Your task to perform on an android device: change the clock style Image 0: 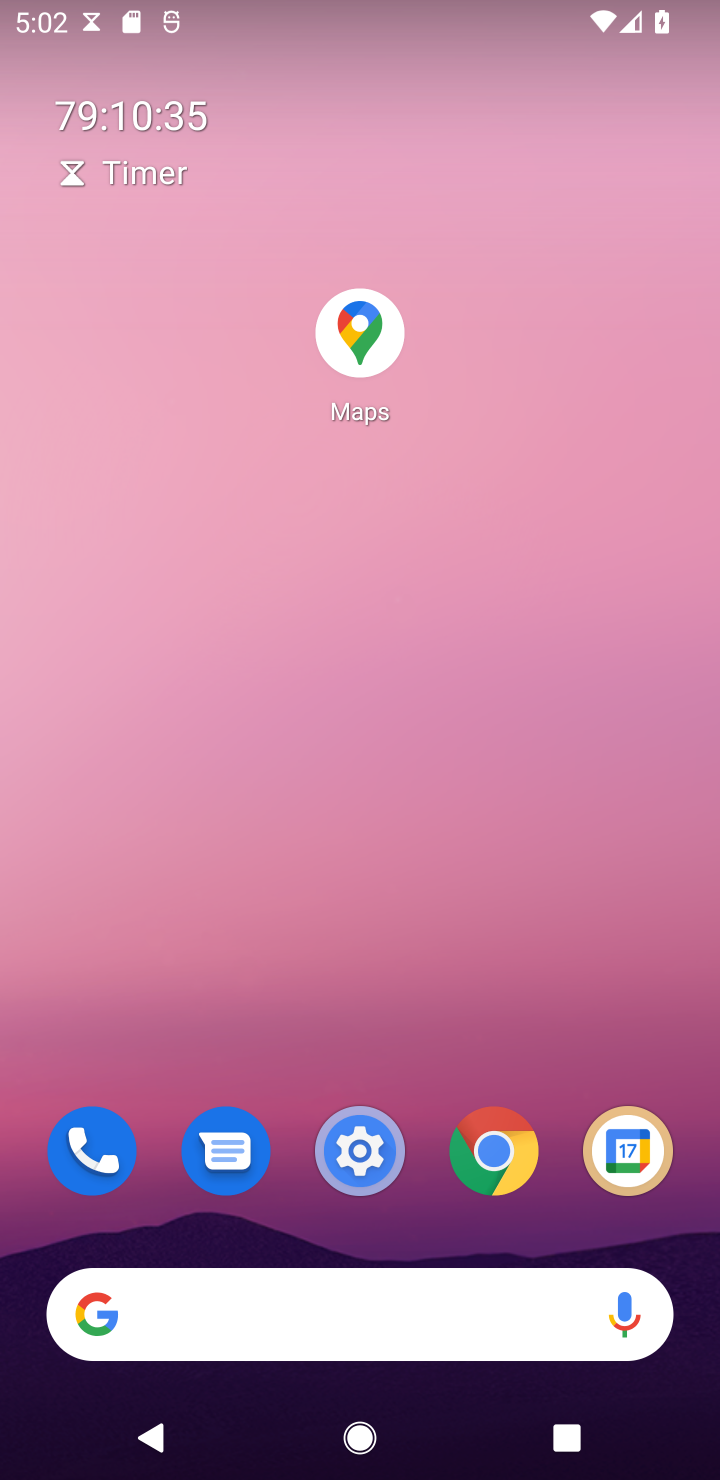
Step 0: drag from (295, 1335) to (355, 570)
Your task to perform on an android device: change the clock style Image 1: 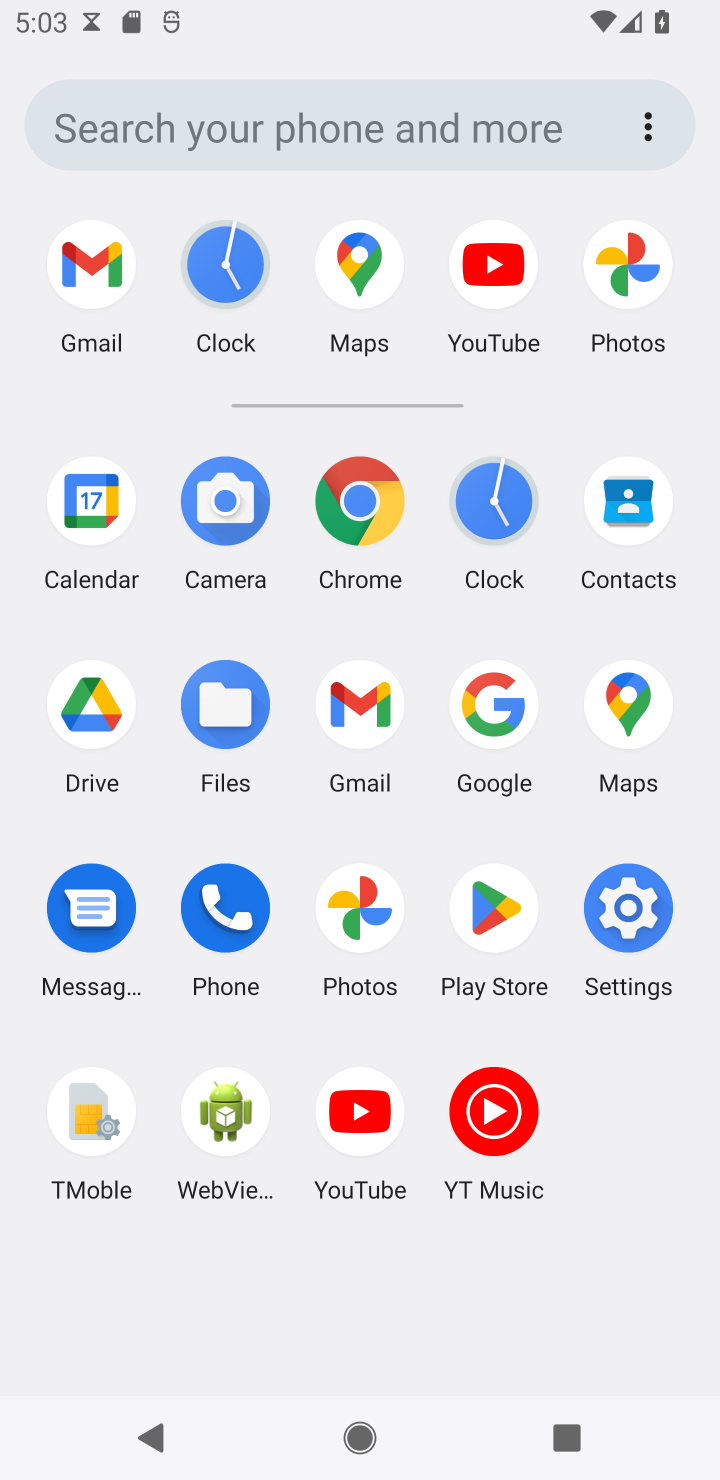
Step 1: click (479, 507)
Your task to perform on an android device: change the clock style Image 2: 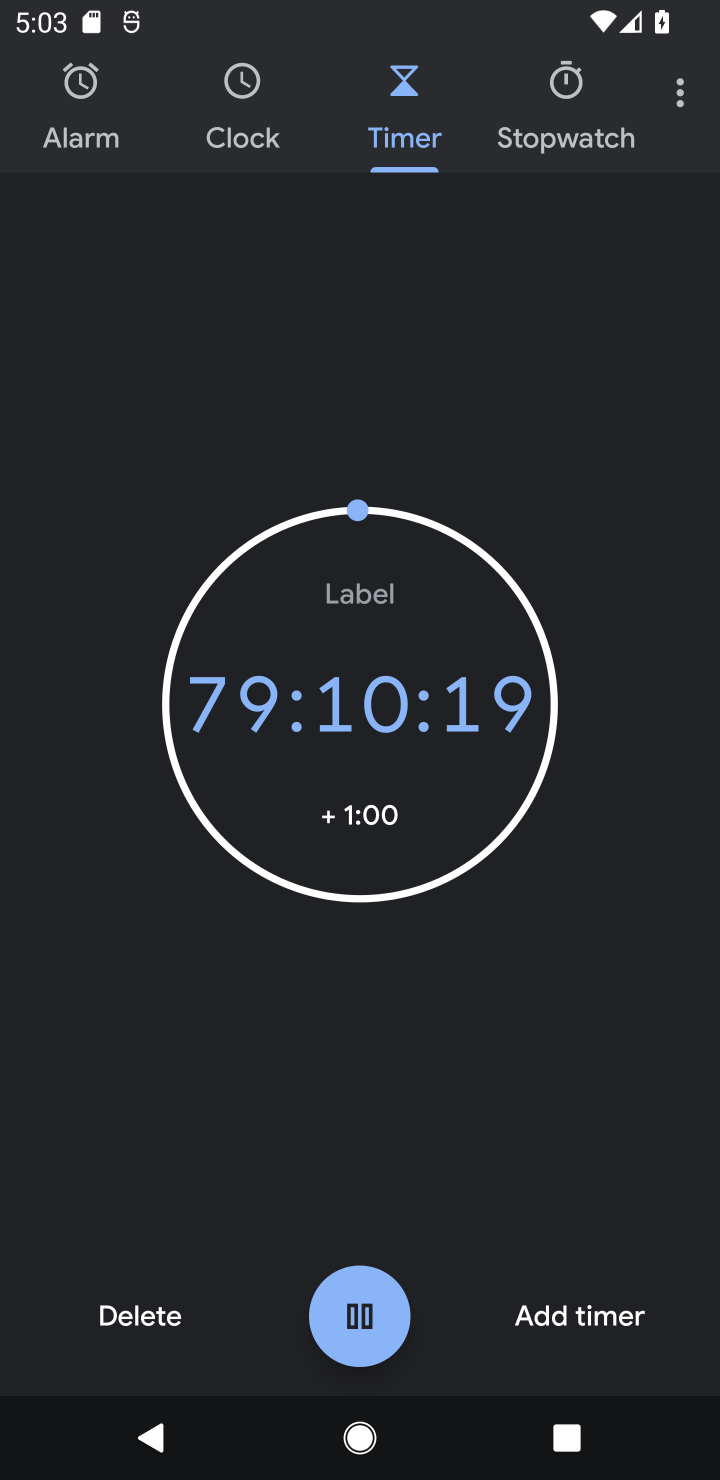
Step 2: click (686, 100)
Your task to perform on an android device: change the clock style Image 3: 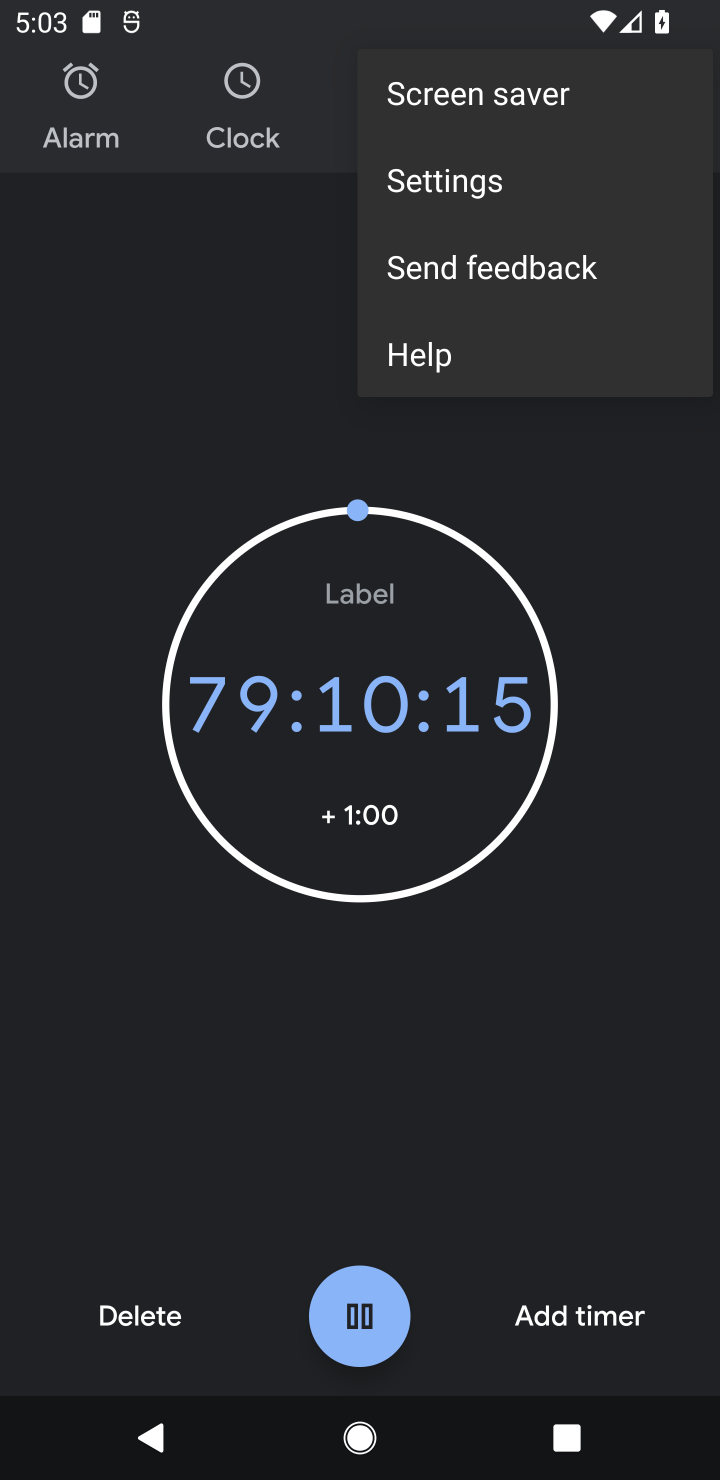
Step 3: click (509, 171)
Your task to perform on an android device: change the clock style Image 4: 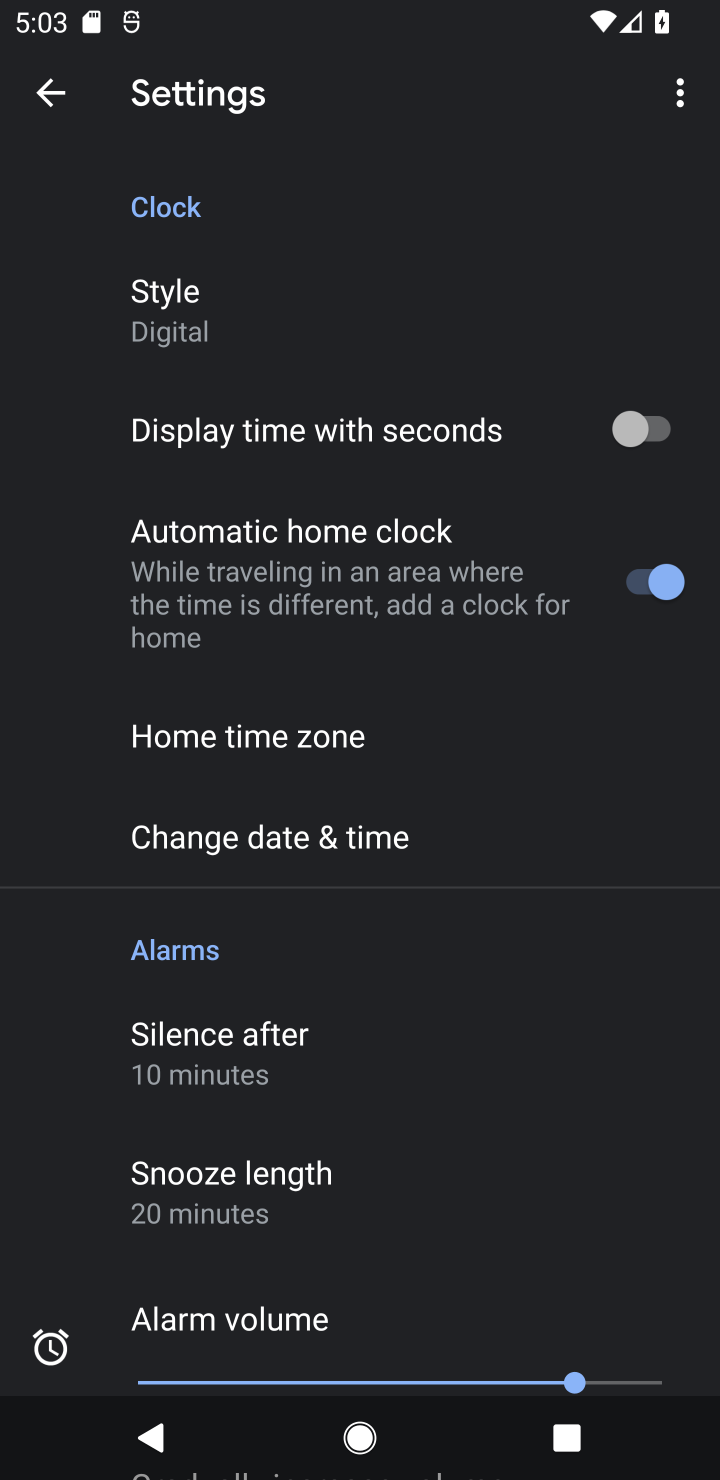
Step 4: click (208, 280)
Your task to perform on an android device: change the clock style Image 5: 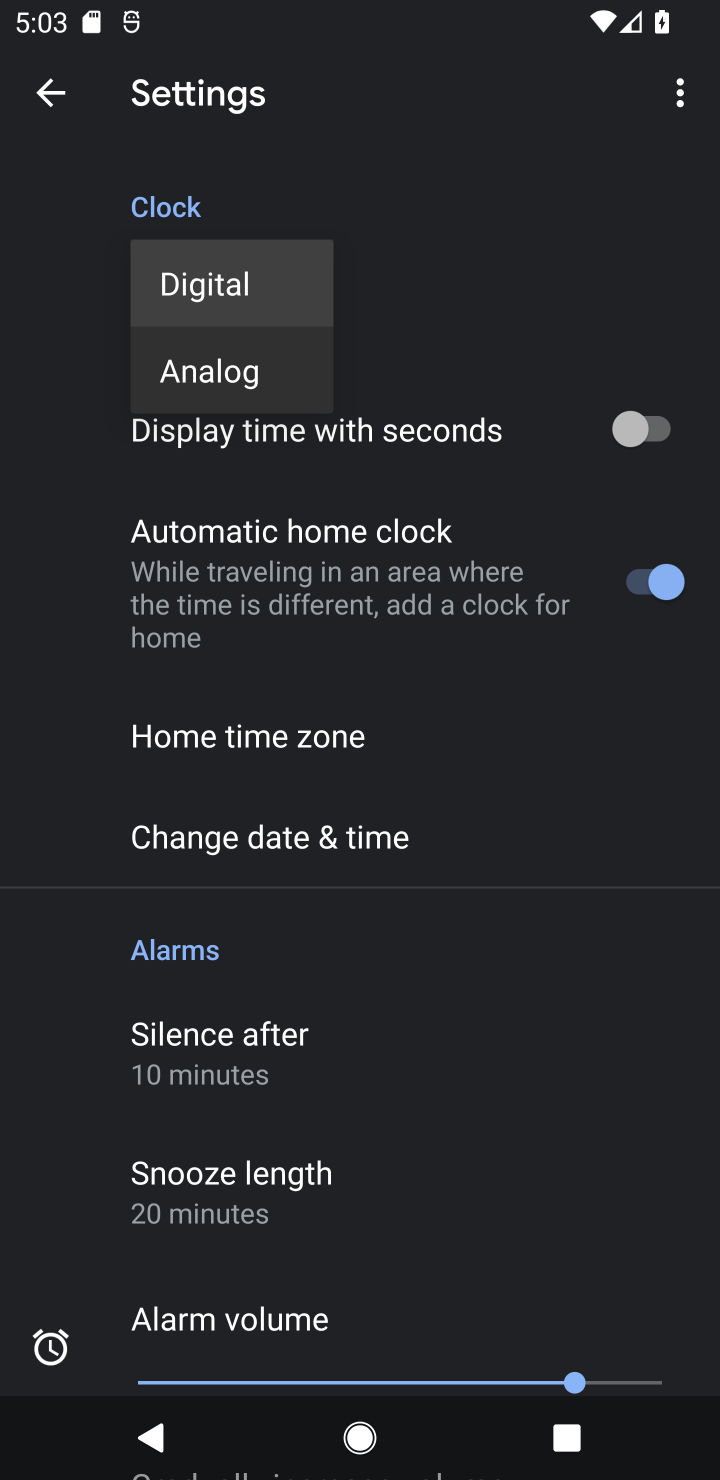
Step 5: click (202, 385)
Your task to perform on an android device: change the clock style Image 6: 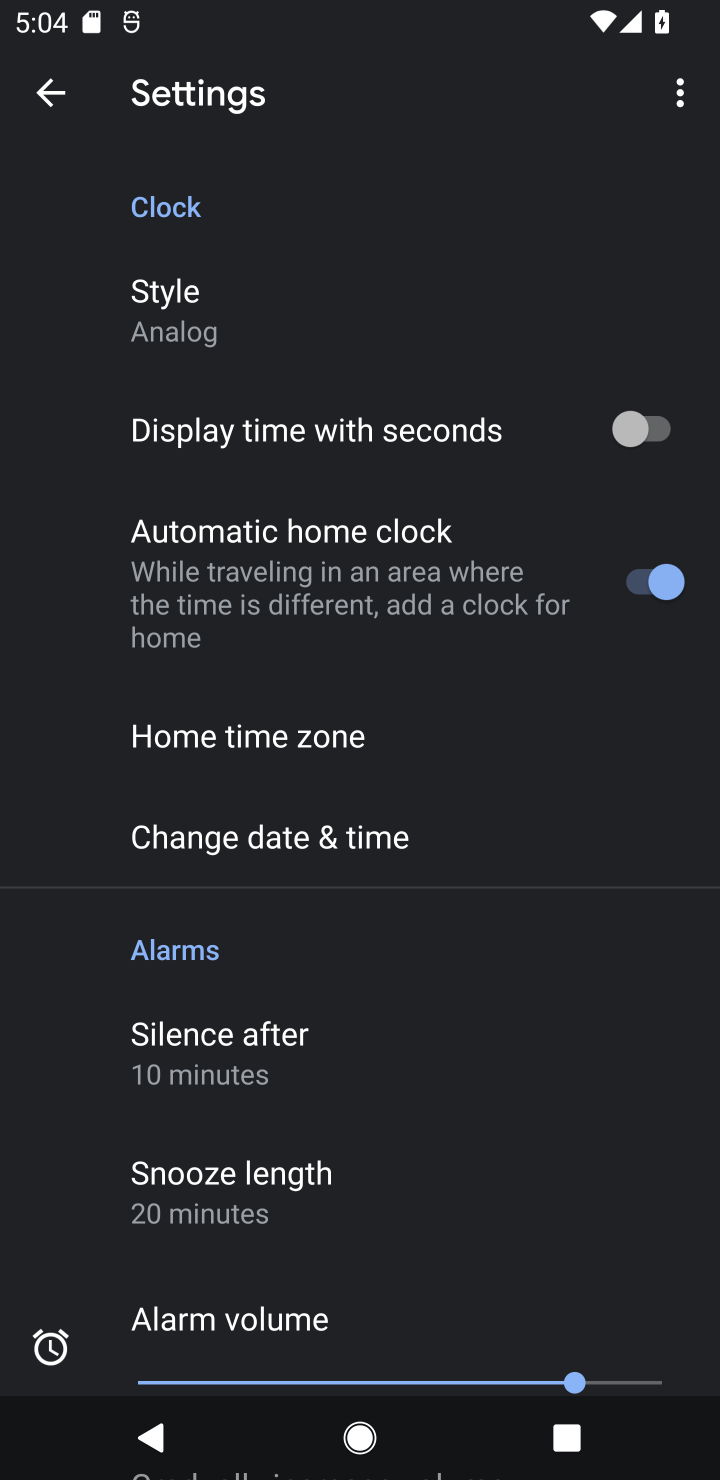
Step 6: task complete